Your task to perform on an android device: visit the assistant section in the google photos Image 0: 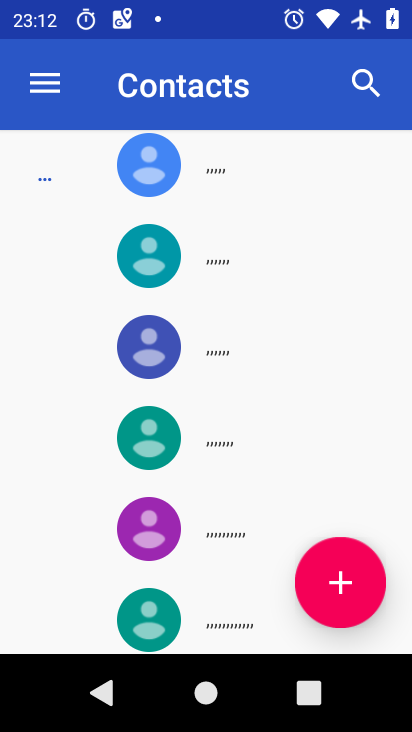
Step 0: drag from (229, 534) to (257, 93)
Your task to perform on an android device: visit the assistant section in the google photos Image 1: 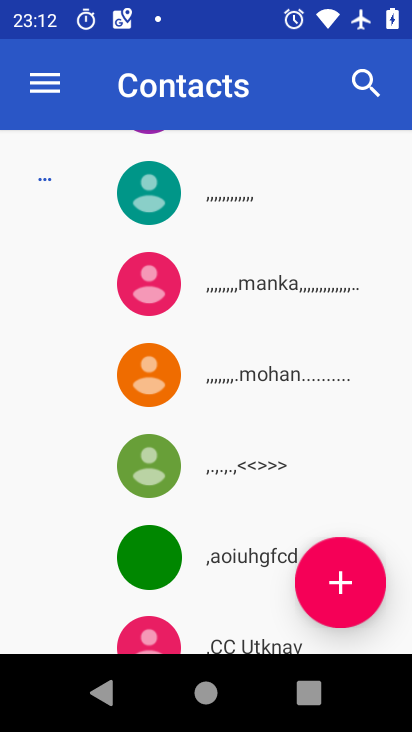
Step 1: click (276, 79)
Your task to perform on an android device: visit the assistant section in the google photos Image 2: 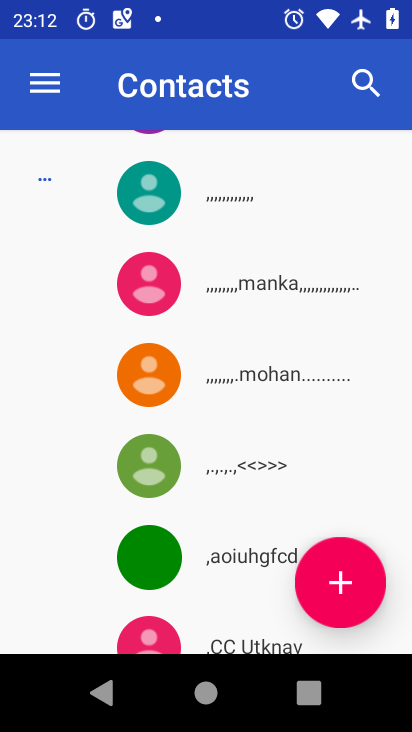
Step 2: press home button
Your task to perform on an android device: visit the assistant section in the google photos Image 3: 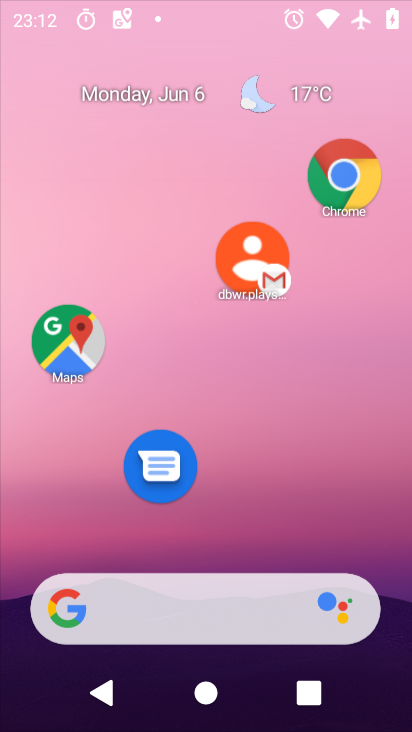
Step 3: drag from (225, 569) to (320, 80)
Your task to perform on an android device: visit the assistant section in the google photos Image 4: 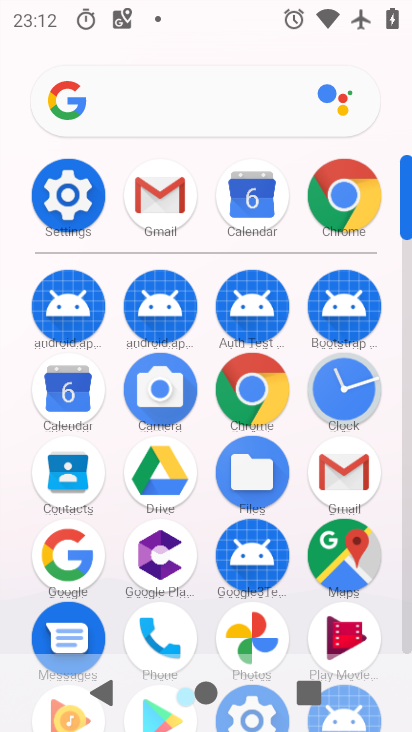
Step 4: drag from (206, 586) to (245, 203)
Your task to perform on an android device: visit the assistant section in the google photos Image 5: 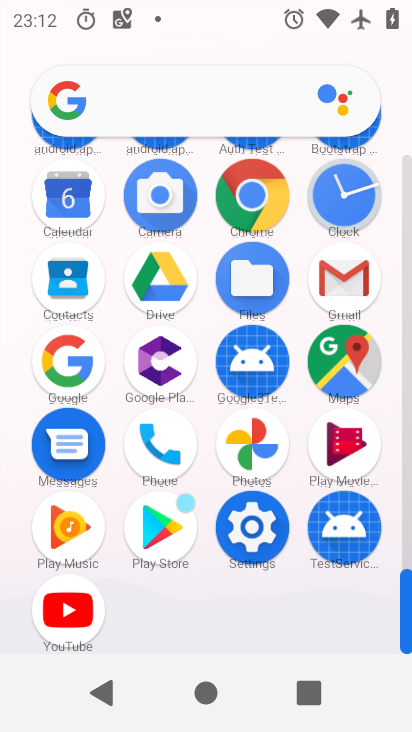
Step 5: click (249, 446)
Your task to perform on an android device: visit the assistant section in the google photos Image 6: 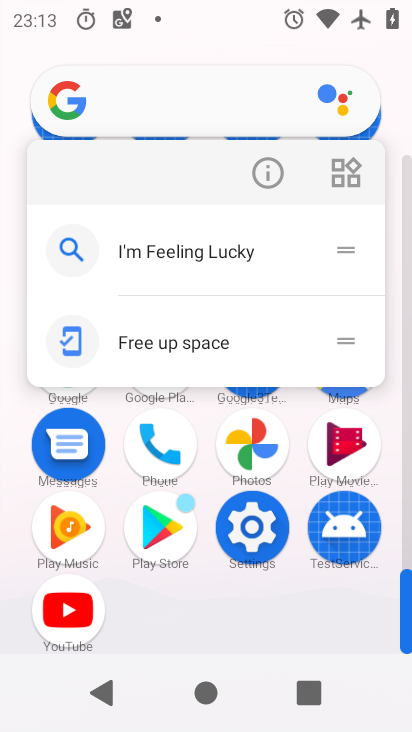
Step 6: click (258, 177)
Your task to perform on an android device: visit the assistant section in the google photos Image 7: 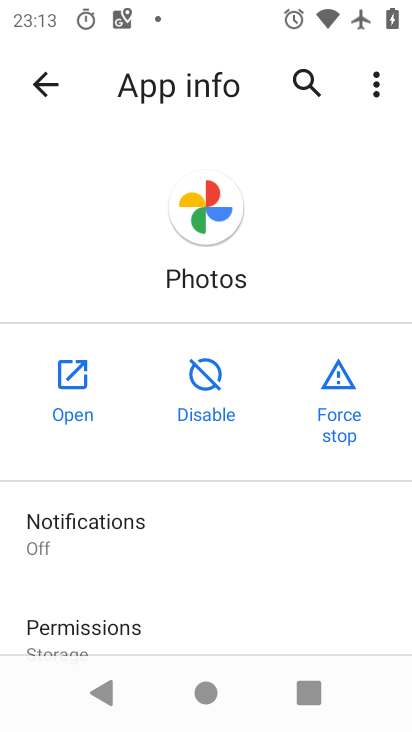
Step 7: click (77, 388)
Your task to perform on an android device: visit the assistant section in the google photos Image 8: 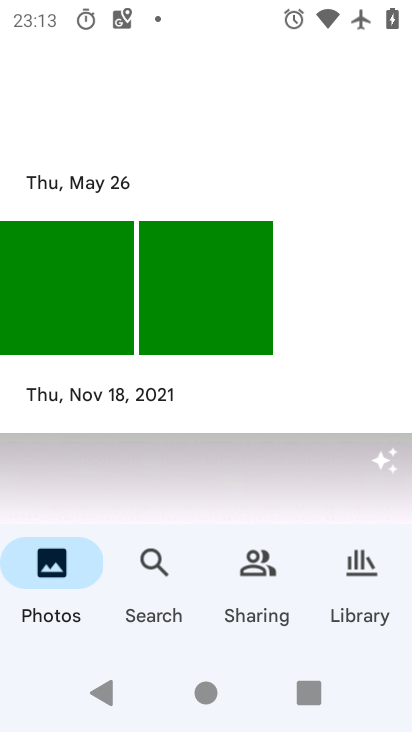
Step 8: drag from (259, 449) to (332, 14)
Your task to perform on an android device: visit the assistant section in the google photos Image 9: 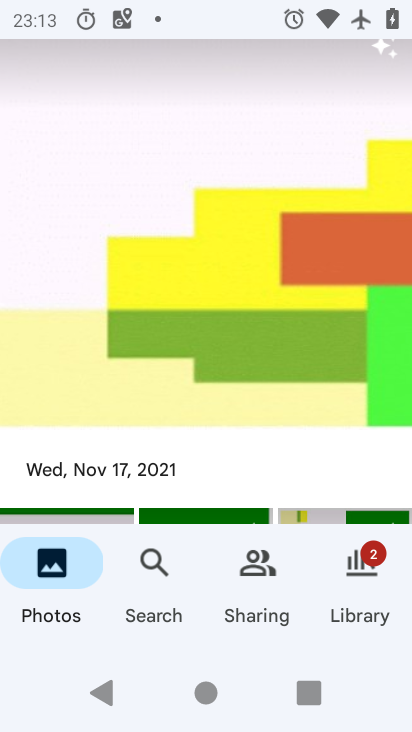
Step 9: drag from (296, 372) to (329, 81)
Your task to perform on an android device: visit the assistant section in the google photos Image 10: 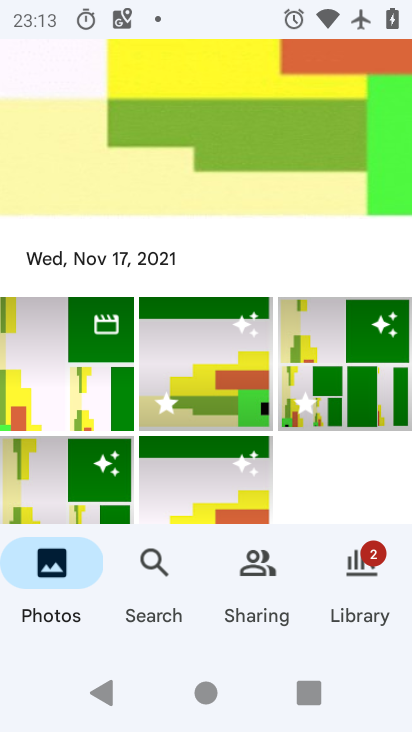
Step 10: click (91, 387)
Your task to perform on an android device: visit the assistant section in the google photos Image 11: 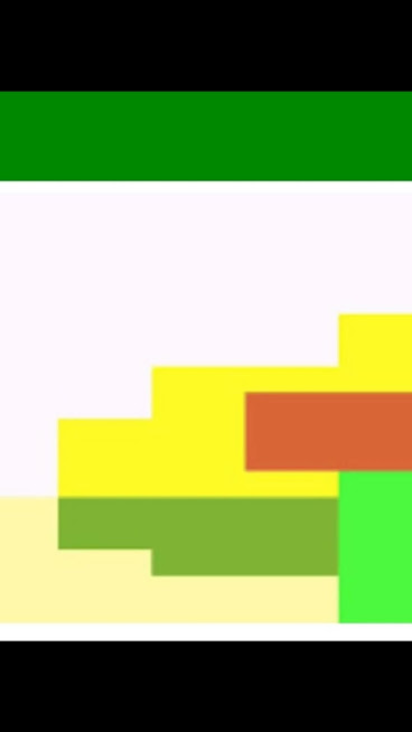
Step 11: drag from (224, 398) to (276, 121)
Your task to perform on an android device: visit the assistant section in the google photos Image 12: 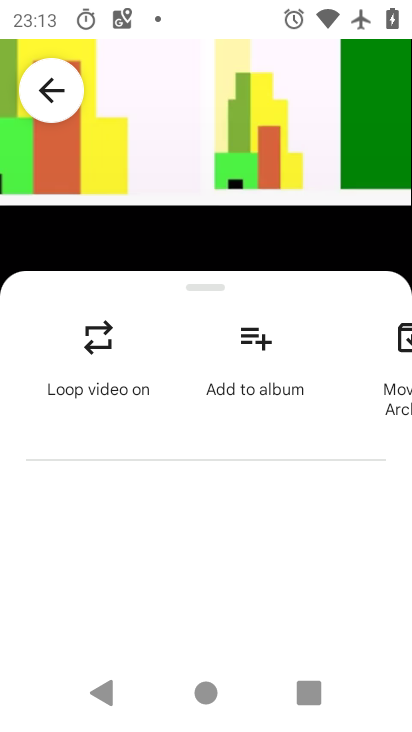
Step 12: drag from (99, 162) to (276, 637)
Your task to perform on an android device: visit the assistant section in the google photos Image 13: 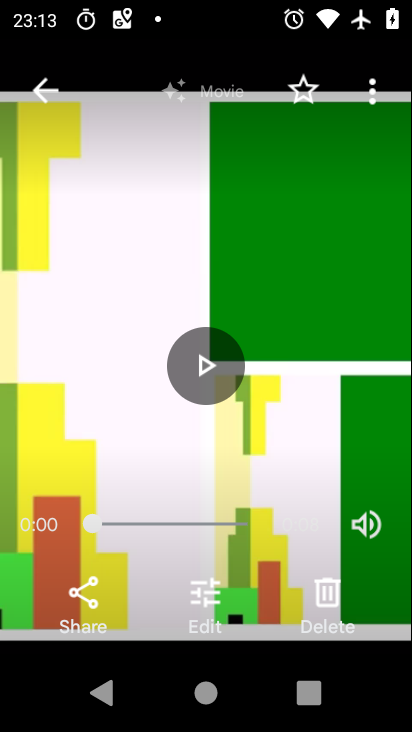
Step 13: press back button
Your task to perform on an android device: visit the assistant section in the google photos Image 14: 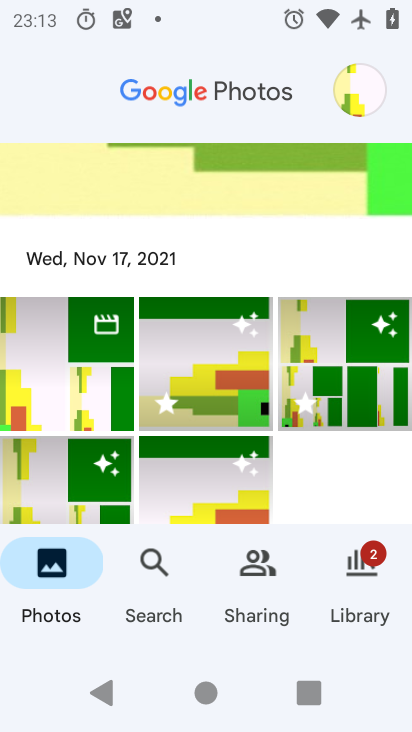
Step 14: click (356, 581)
Your task to perform on an android device: visit the assistant section in the google photos Image 15: 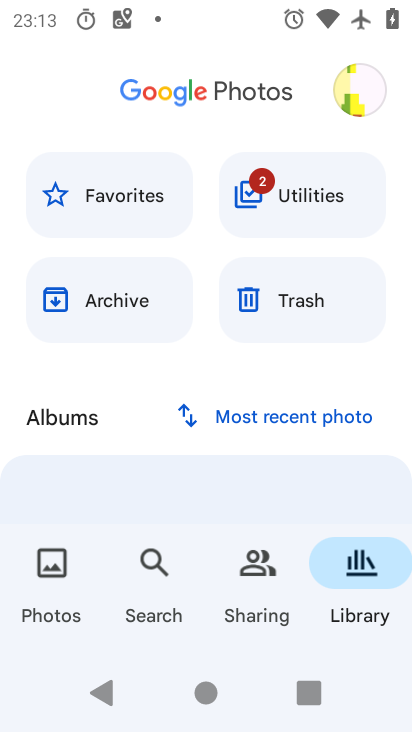
Step 15: task complete